Your task to perform on an android device: Go to Yahoo.com Image 0: 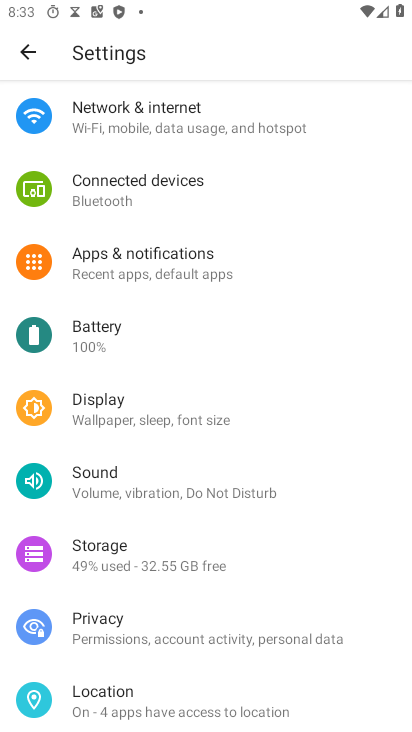
Step 0: press home button
Your task to perform on an android device: Go to Yahoo.com Image 1: 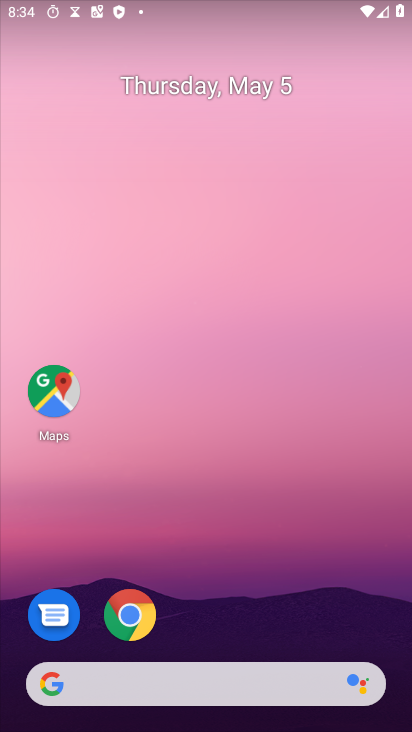
Step 1: click (136, 603)
Your task to perform on an android device: Go to Yahoo.com Image 2: 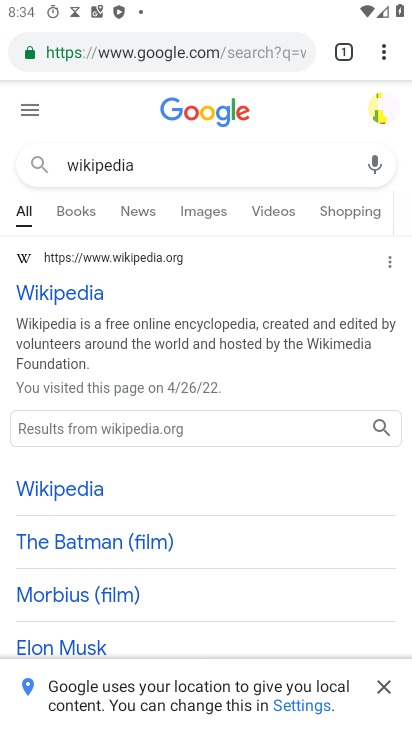
Step 2: click (222, 57)
Your task to perform on an android device: Go to Yahoo.com Image 3: 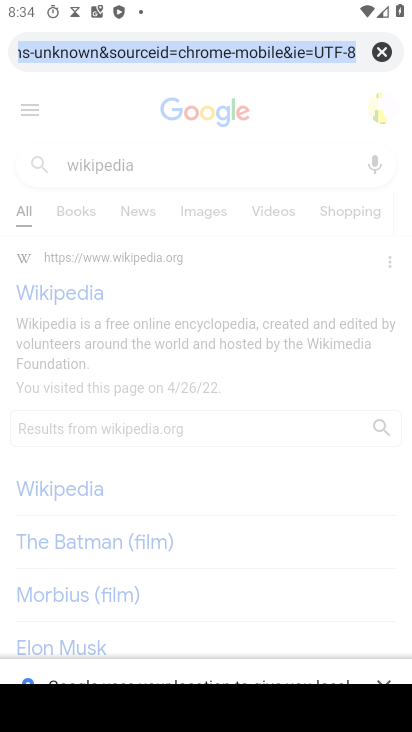
Step 3: type "yahoo.com"
Your task to perform on an android device: Go to Yahoo.com Image 4: 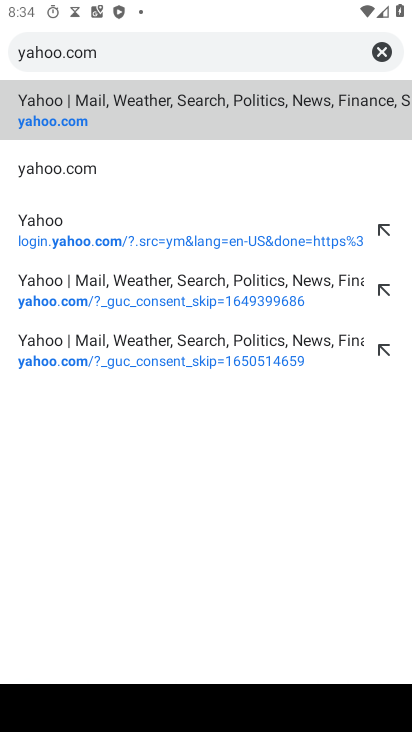
Step 4: click (117, 103)
Your task to perform on an android device: Go to Yahoo.com Image 5: 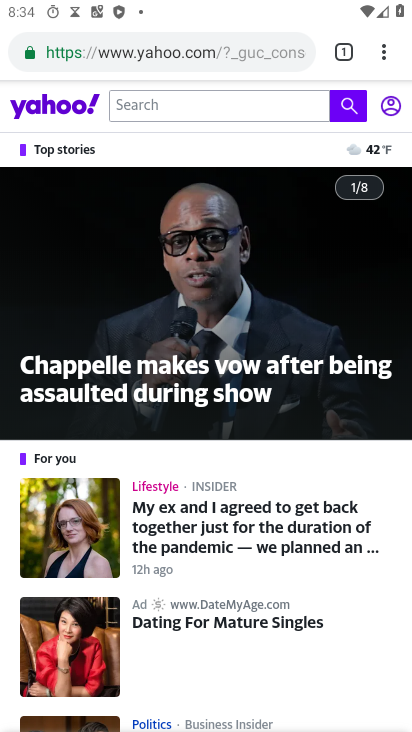
Step 5: task complete